Your task to perform on an android device: Go to Yahoo.com Image 0: 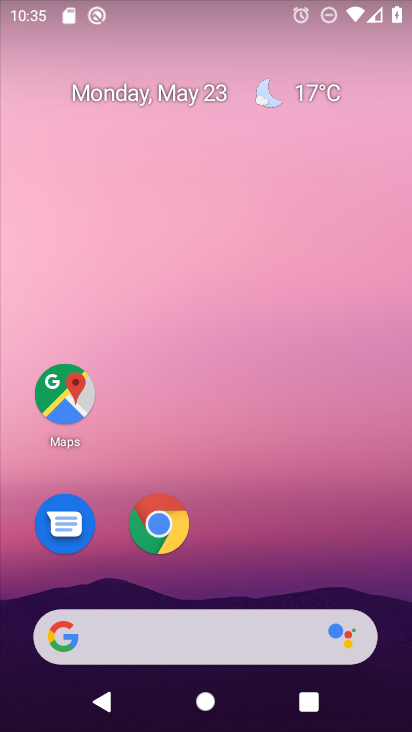
Step 0: click (167, 514)
Your task to perform on an android device: Go to Yahoo.com Image 1: 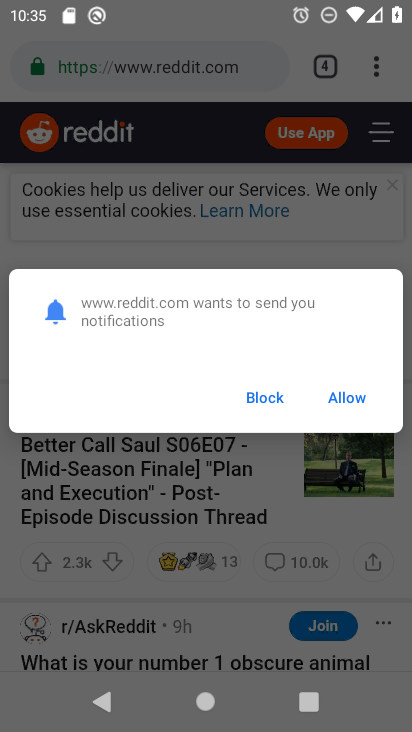
Step 1: click (336, 392)
Your task to perform on an android device: Go to Yahoo.com Image 2: 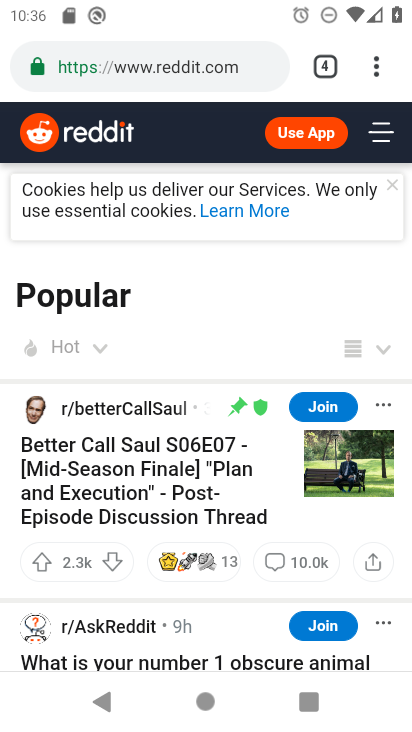
Step 2: click (327, 65)
Your task to perform on an android device: Go to Yahoo.com Image 3: 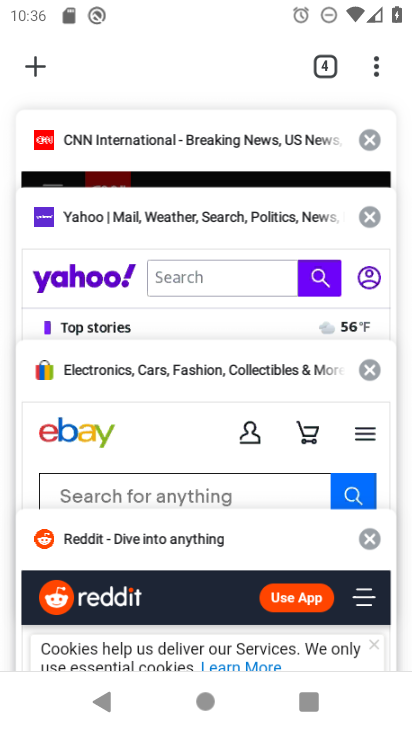
Step 3: click (206, 256)
Your task to perform on an android device: Go to Yahoo.com Image 4: 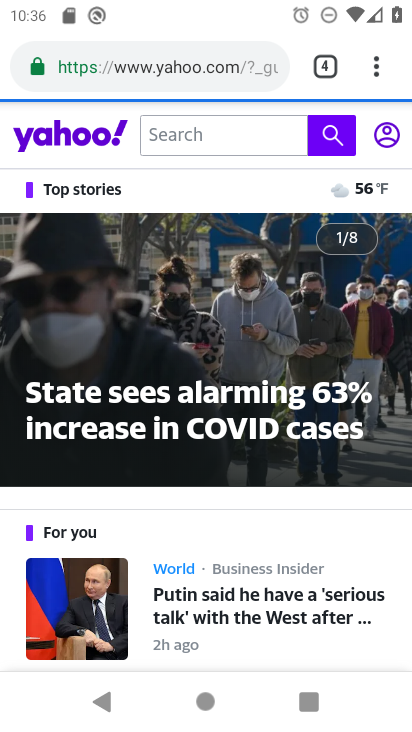
Step 4: task complete